Your task to perform on an android device: Search for sushi restaurants on Maps Image 0: 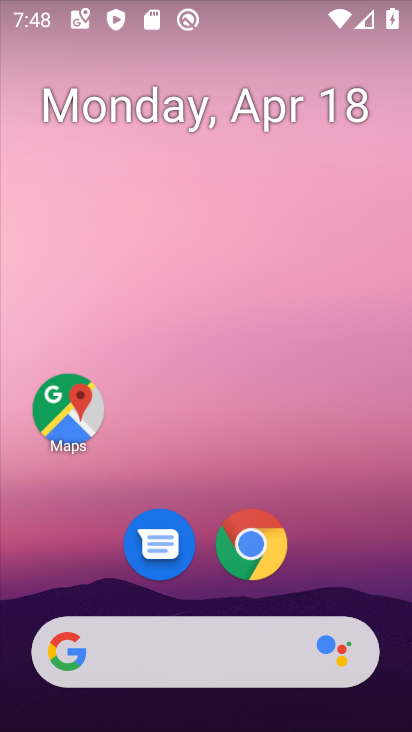
Step 0: click (58, 411)
Your task to perform on an android device: Search for sushi restaurants on Maps Image 1: 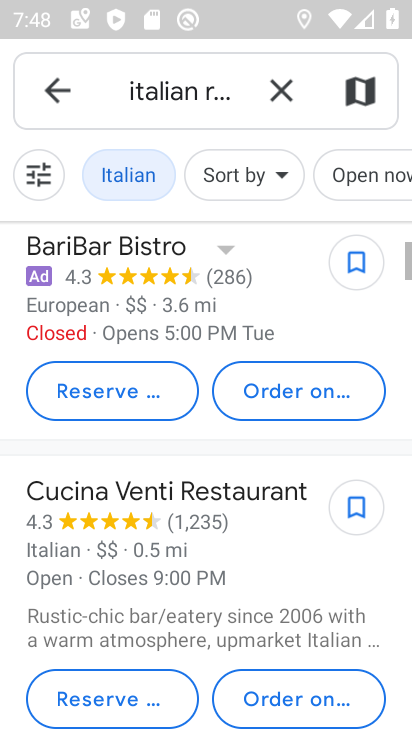
Step 1: click (277, 91)
Your task to perform on an android device: Search for sushi restaurants on Maps Image 2: 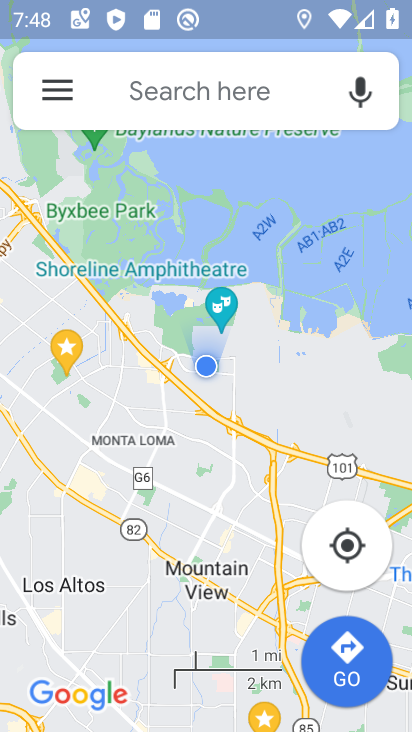
Step 2: click (122, 97)
Your task to perform on an android device: Search for sushi restaurants on Maps Image 3: 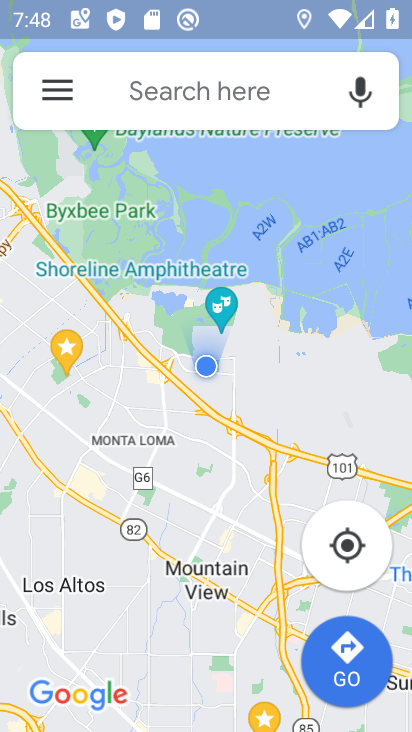
Step 3: click (97, 91)
Your task to perform on an android device: Search for sushi restaurants on Maps Image 4: 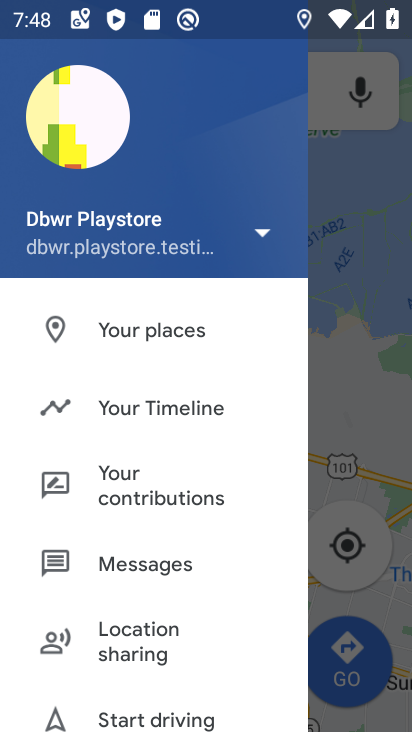
Step 4: click (323, 104)
Your task to perform on an android device: Search for sushi restaurants on Maps Image 5: 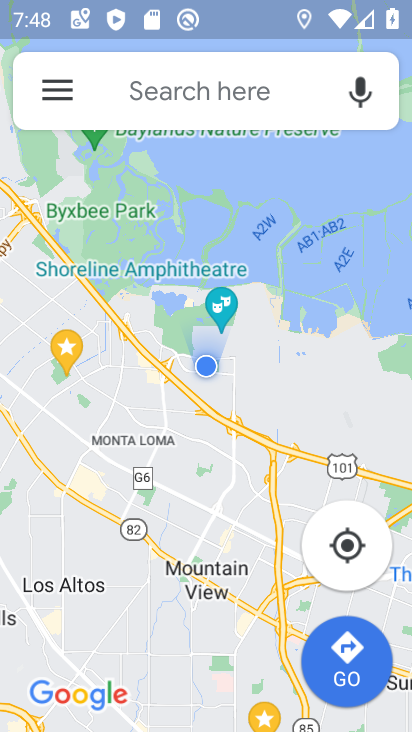
Step 5: click (142, 93)
Your task to perform on an android device: Search for sushi restaurants on Maps Image 6: 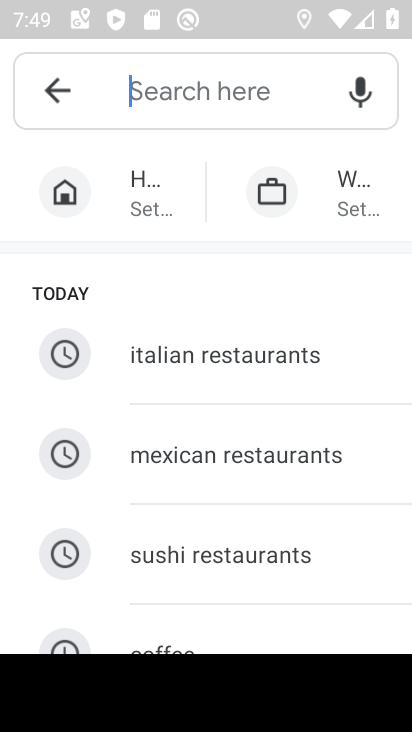
Step 6: type "sushi restaurant"
Your task to perform on an android device: Search for sushi restaurants on Maps Image 7: 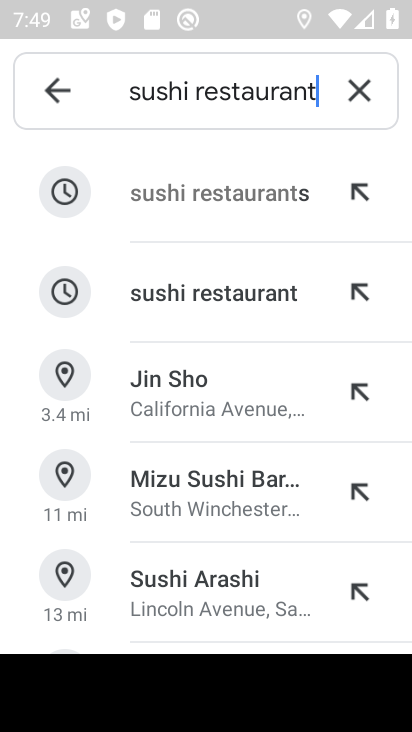
Step 7: click (199, 192)
Your task to perform on an android device: Search for sushi restaurants on Maps Image 8: 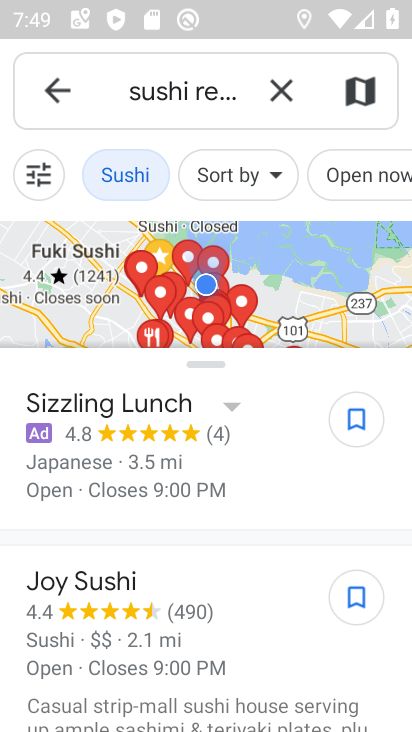
Step 8: task complete